Your task to perform on an android device: Search for vegetarian restaurants on Maps Image 0: 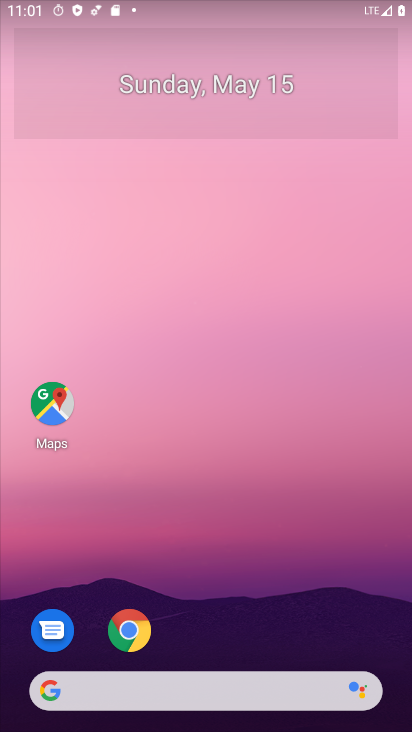
Step 0: click (61, 405)
Your task to perform on an android device: Search for vegetarian restaurants on Maps Image 1: 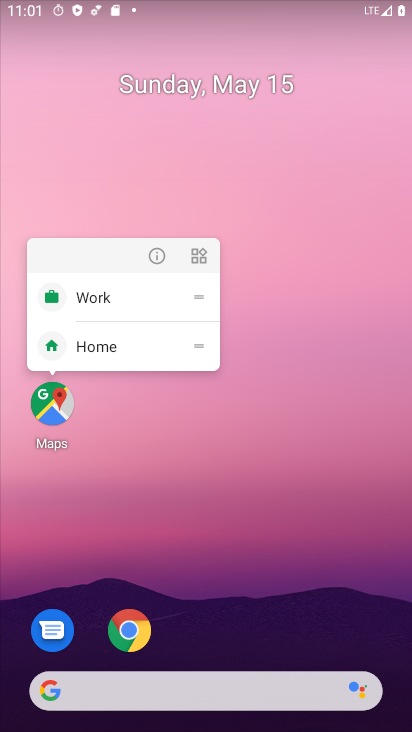
Step 1: click (47, 407)
Your task to perform on an android device: Search for vegetarian restaurants on Maps Image 2: 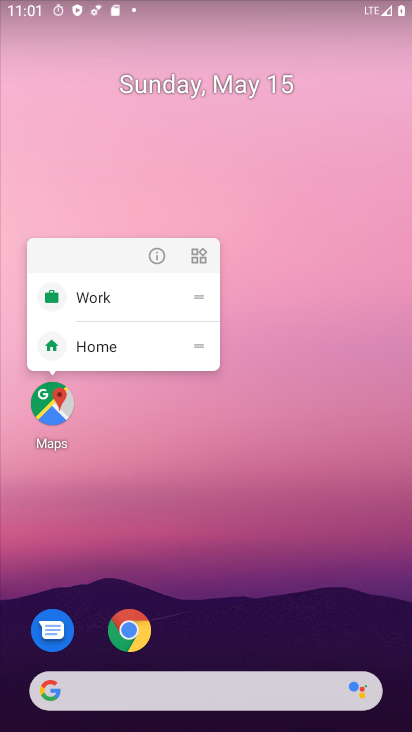
Step 2: click (47, 407)
Your task to perform on an android device: Search for vegetarian restaurants on Maps Image 3: 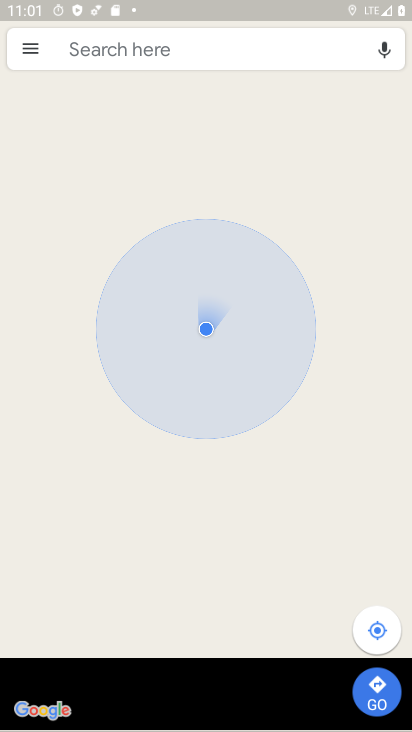
Step 3: click (132, 47)
Your task to perform on an android device: Search for vegetarian restaurants on Maps Image 4: 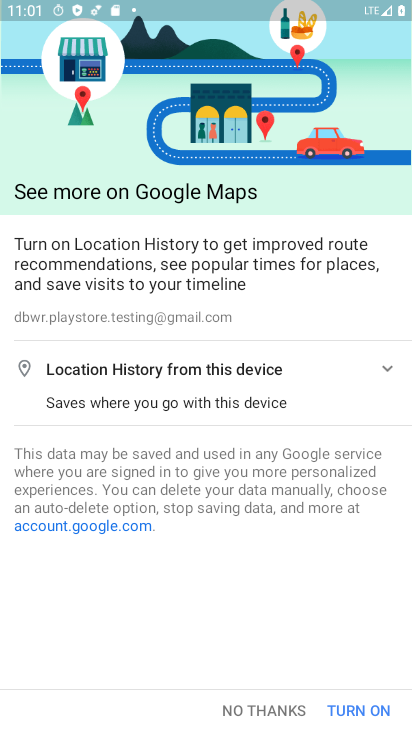
Step 4: click (253, 723)
Your task to perform on an android device: Search for vegetarian restaurants on Maps Image 5: 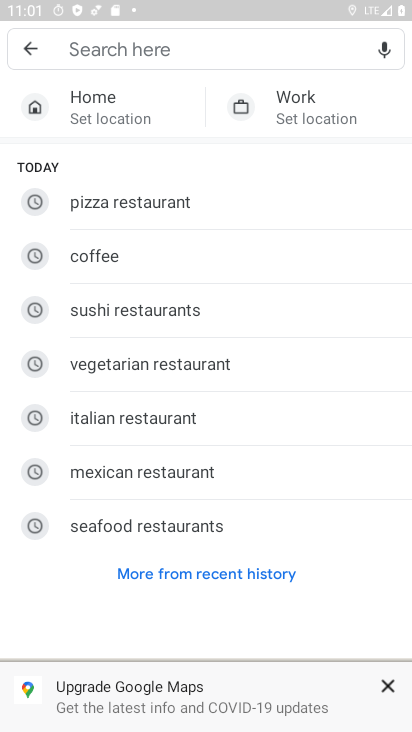
Step 5: click (122, 55)
Your task to perform on an android device: Search for vegetarian restaurants on Maps Image 6: 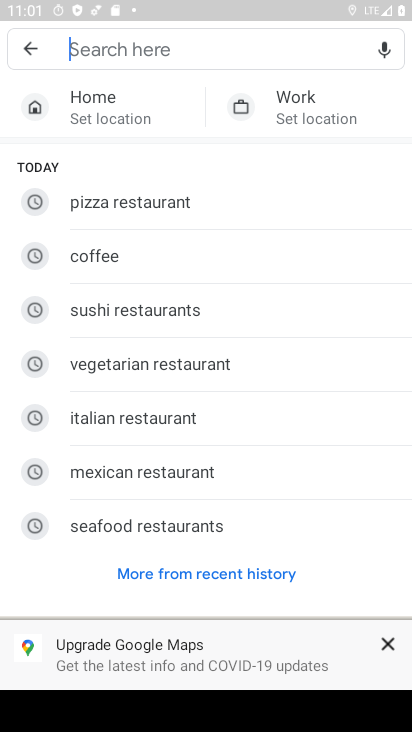
Step 6: click (104, 350)
Your task to perform on an android device: Search for vegetarian restaurants on Maps Image 7: 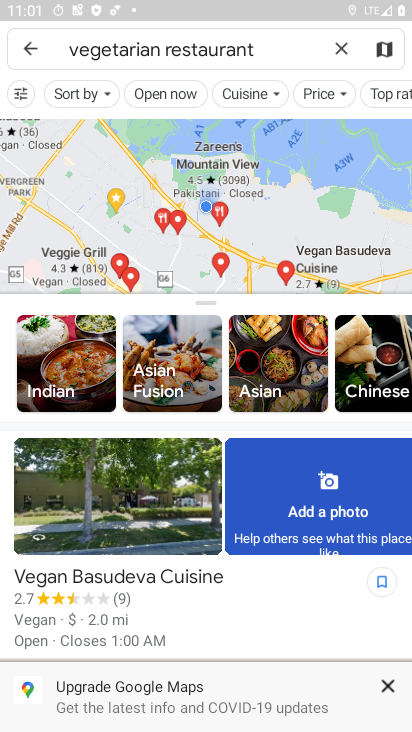
Step 7: task complete